Your task to perform on an android device: Go to ESPN.com Image 0: 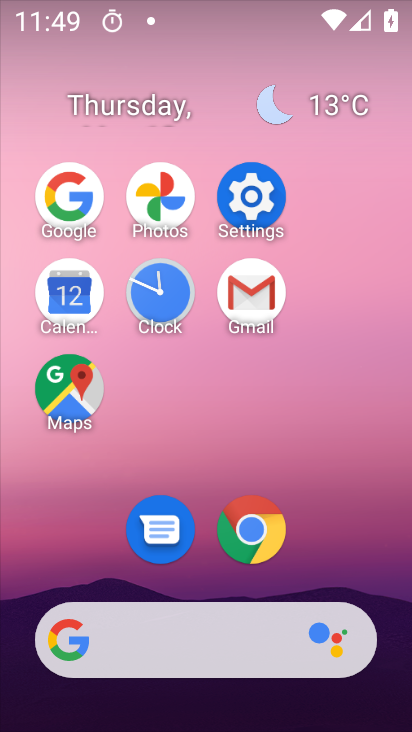
Step 0: click (271, 551)
Your task to perform on an android device: Go to ESPN.com Image 1: 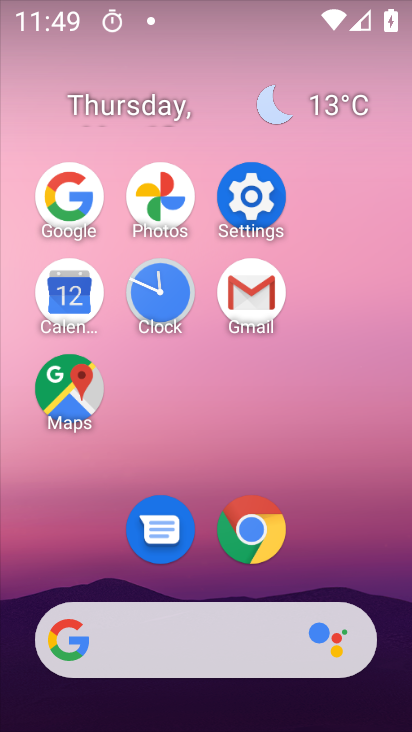
Step 1: click (237, 531)
Your task to perform on an android device: Go to ESPN.com Image 2: 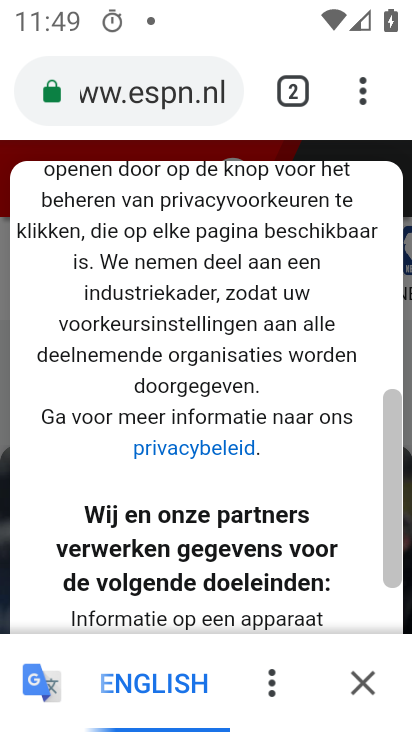
Step 2: click (361, 677)
Your task to perform on an android device: Go to ESPN.com Image 3: 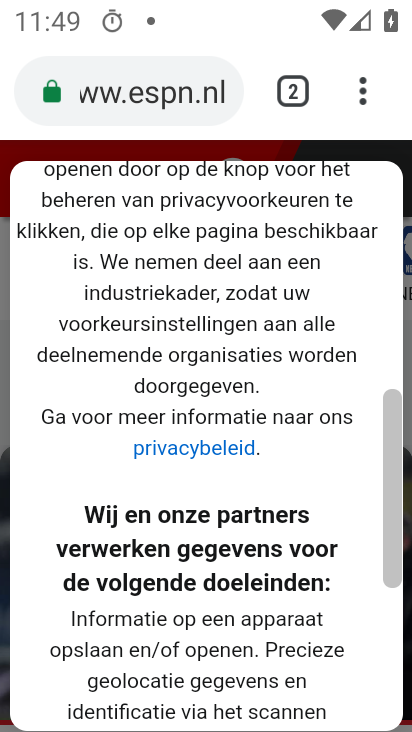
Step 3: click (285, 84)
Your task to perform on an android device: Go to ESPN.com Image 4: 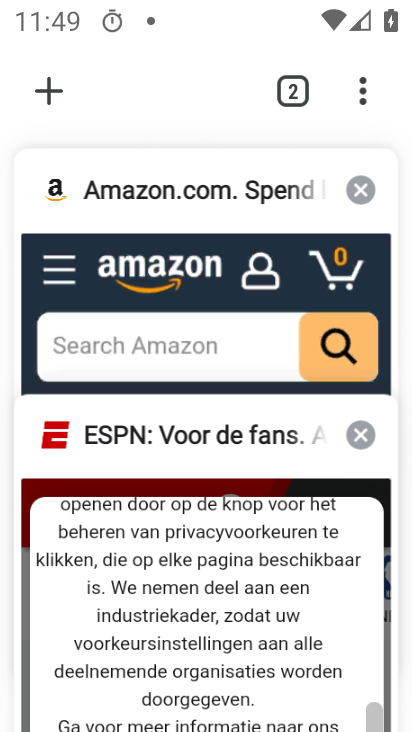
Step 4: click (213, 438)
Your task to perform on an android device: Go to ESPN.com Image 5: 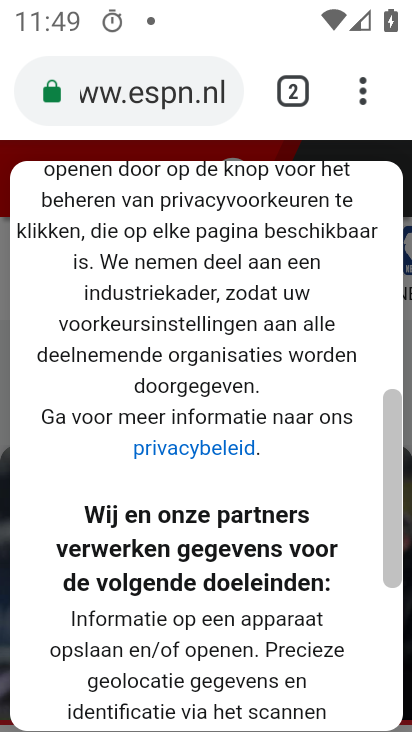
Step 5: task complete